Your task to perform on an android device: find which apps use the phone's location Image 0: 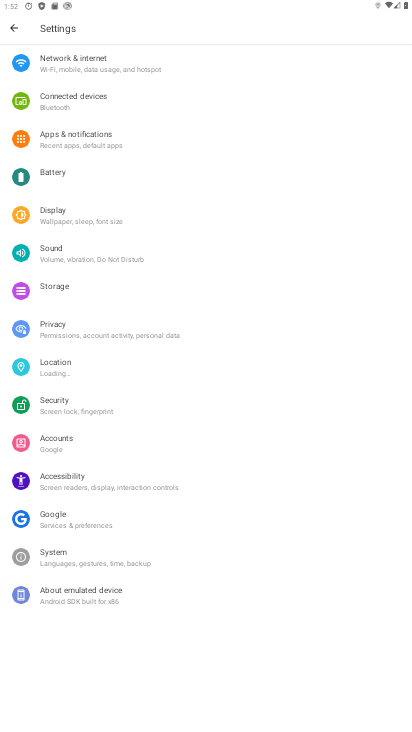
Step 0: press home button
Your task to perform on an android device: find which apps use the phone's location Image 1: 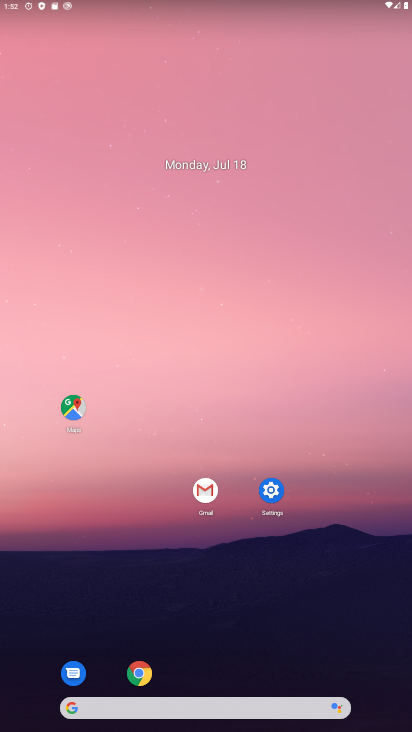
Step 1: click (279, 483)
Your task to perform on an android device: find which apps use the phone's location Image 2: 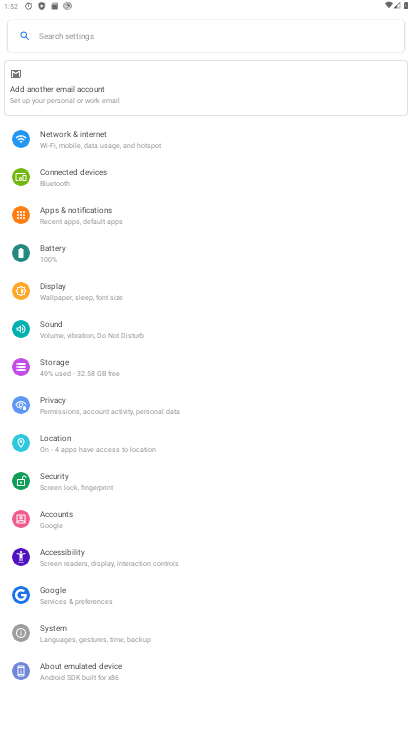
Step 2: click (74, 447)
Your task to perform on an android device: find which apps use the phone's location Image 3: 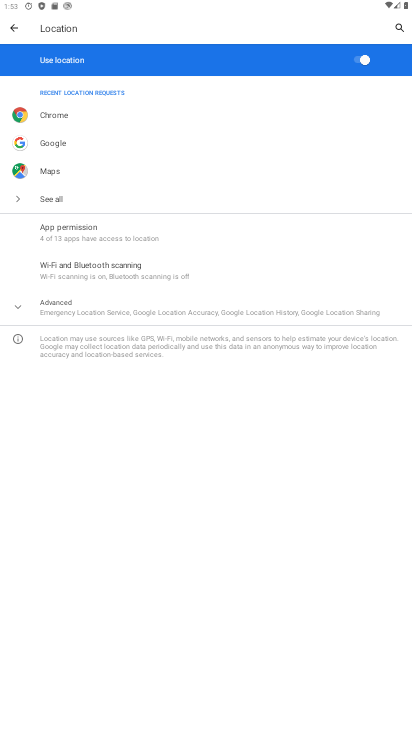
Step 3: task complete